Your task to perform on an android device: Open eBay Image 0: 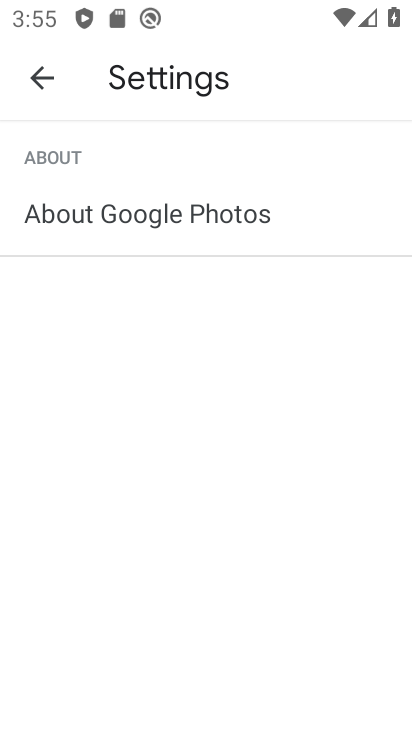
Step 0: click (27, 68)
Your task to perform on an android device: Open eBay Image 1: 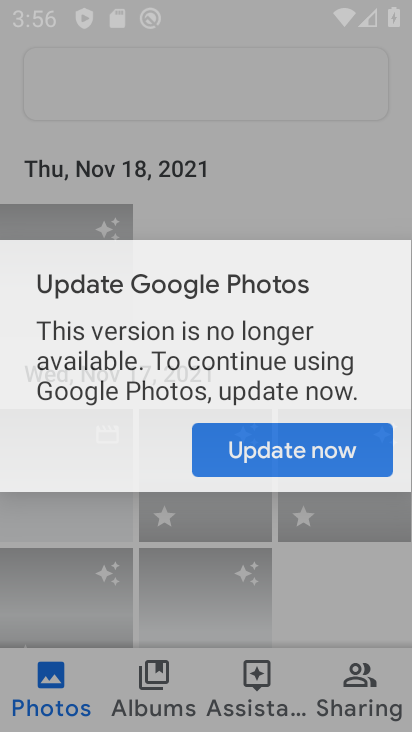
Step 1: press back button
Your task to perform on an android device: Open eBay Image 2: 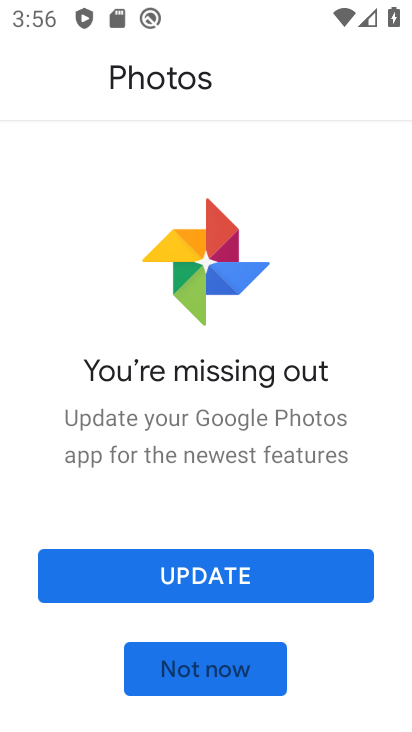
Step 2: press home button
Your task to perform on an android device: Open eBay Image 3: 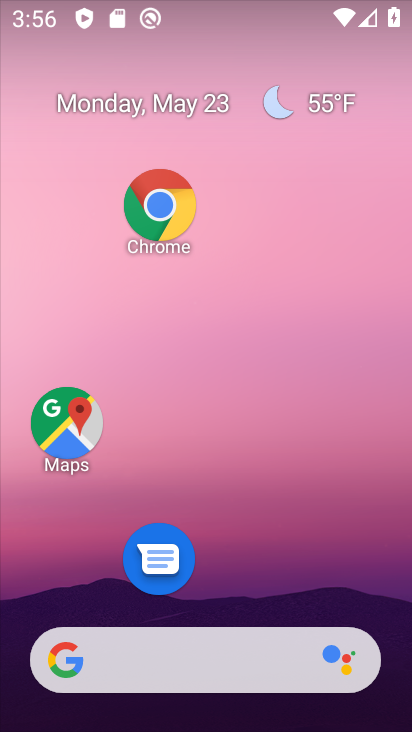
Step 3: drag from (301, 717) to (108, 7)
Your task to perform on an android device: Open eBay Image 4: 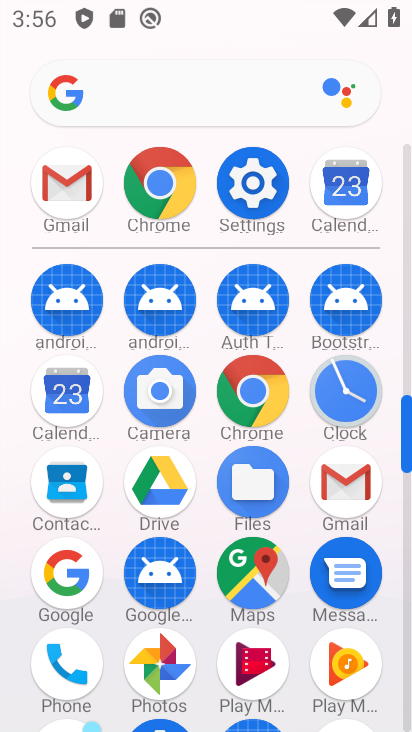
Step 4: click (162, 196)
Your task to perform on an android device: Open eBay Image 5: 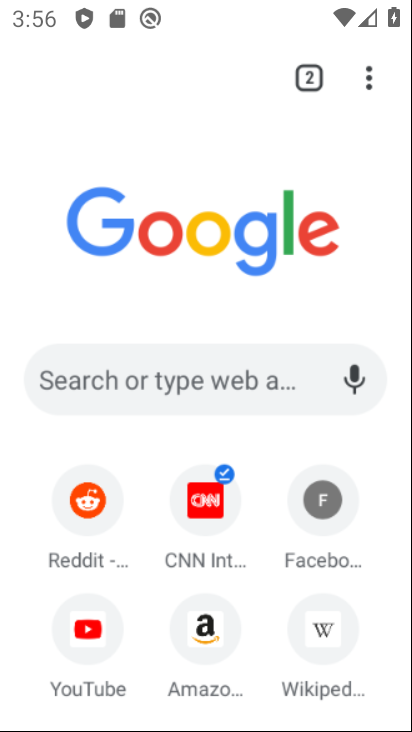
Step 5: click (162, 196)
Your task to perform on an android device: Open eBay Image 6: 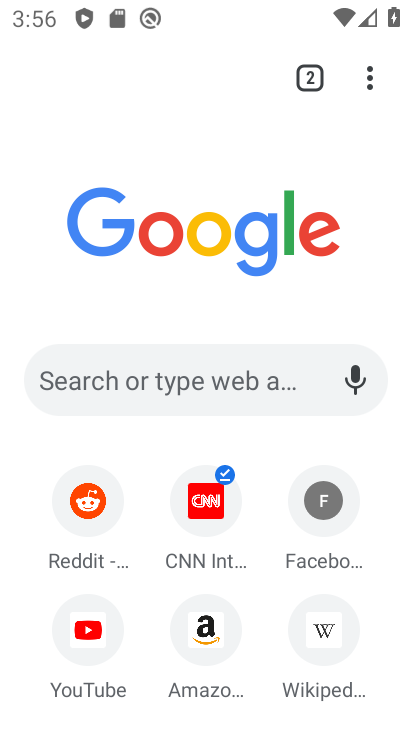
Step 6: click (162, 196)
Your task to perform on an android device: Open eBay Image 7: 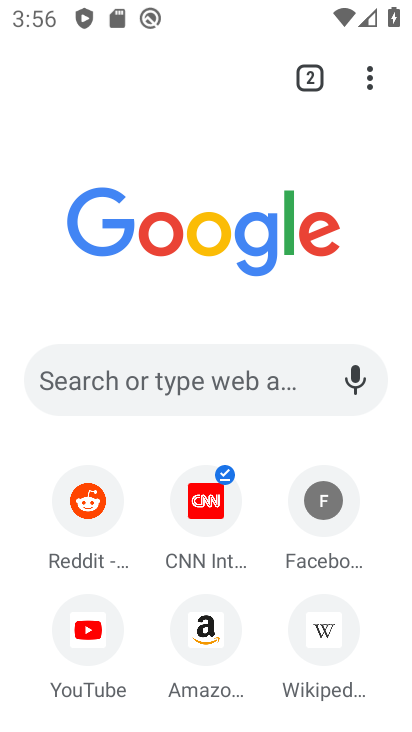
Step 7: click (51, 379)
Your task to perform on an android device: Open eBay Image 8: 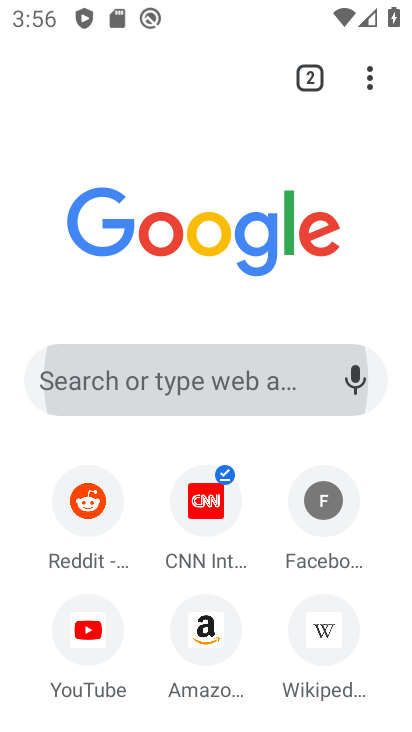
Step 8: click (52, 379)
Your task to perform on an android device: Open eBay Image 9: 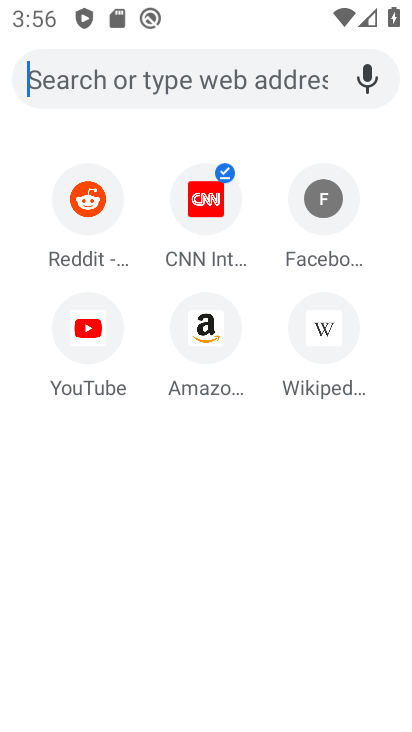
Step 9: click (53, 379)
Your task to perform on an android device: Open eBay Image 10: 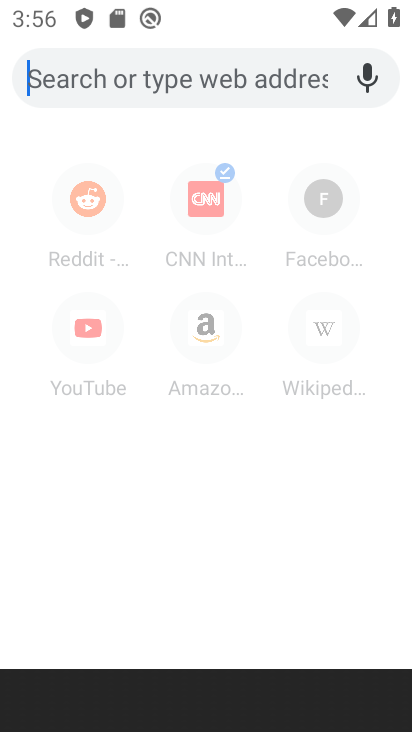
Step 10: click (57, 379)
Your task to perform on an android device: Open eBay Image 11: 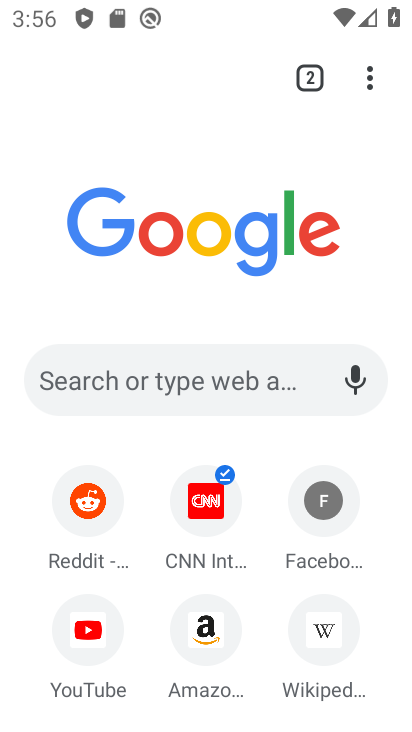
Step 11: click (64, 376)
Your task to perform on an android device: Open eBay Image 12: 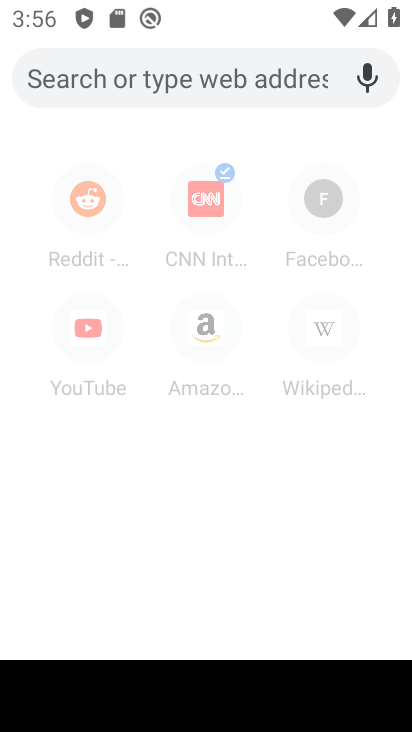
Step 12: type "ebay.com"
Your task to perform on an android device: Open eBay Image 13: 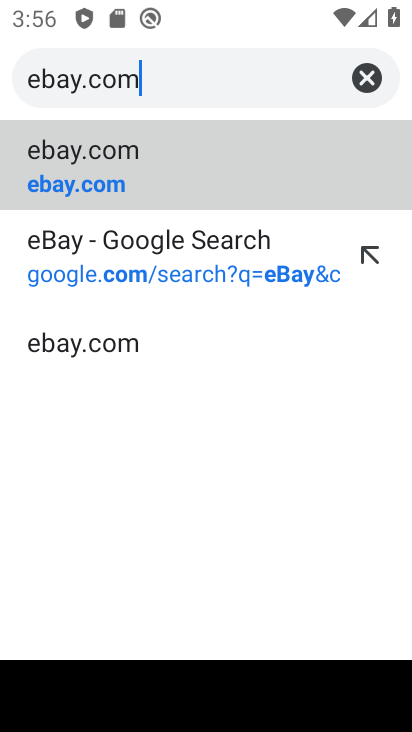
Step 13: click (47, 187)
Your task to perform on an android device: Open eBay Image 14: 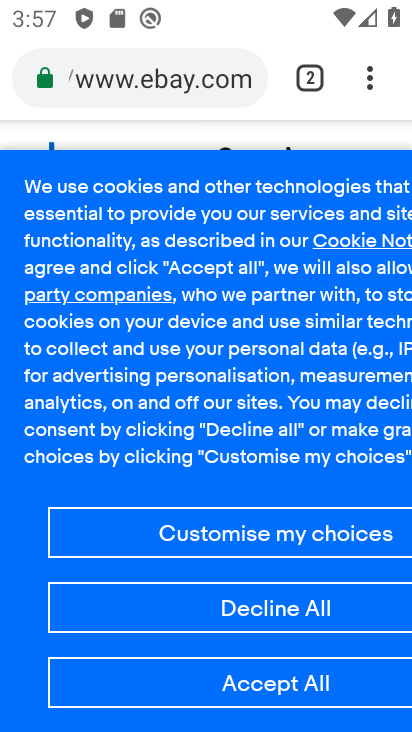
Step 14: task complete